Your task to perform on an android device: Go to CNN.com Image 0: 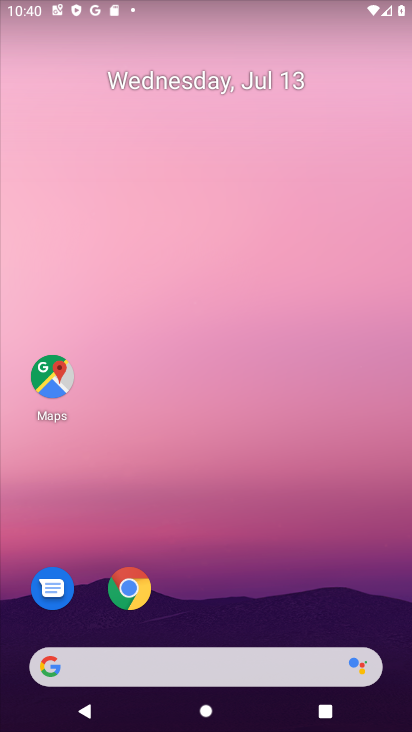
Step 0: drag from (254, 604) to (240, 119)
Your task to perform on an android device: Go to CNN.com Image 1: 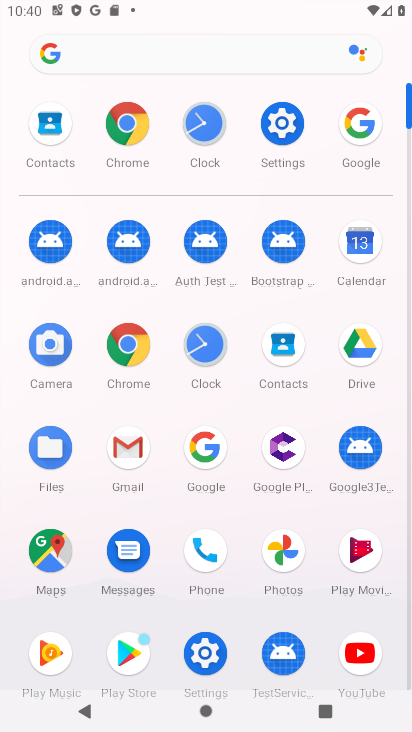
Step 1: click (203, 450)
Your task to perform on an android device: Go to CNN.com Image 2: 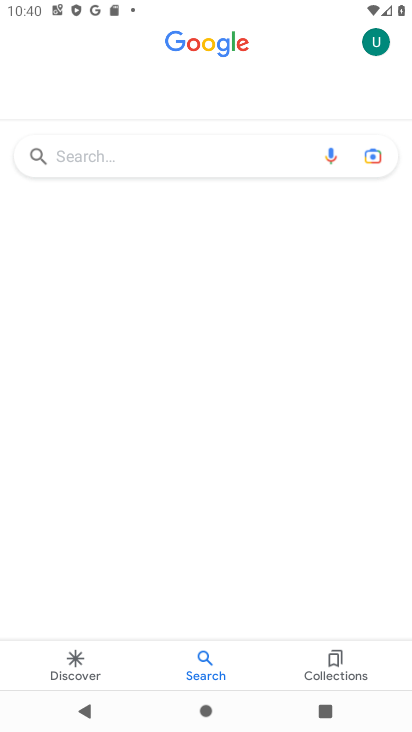
Step 2: click (155, 159)
Your task to perform on an android device: Go to CNN.com Image 3: 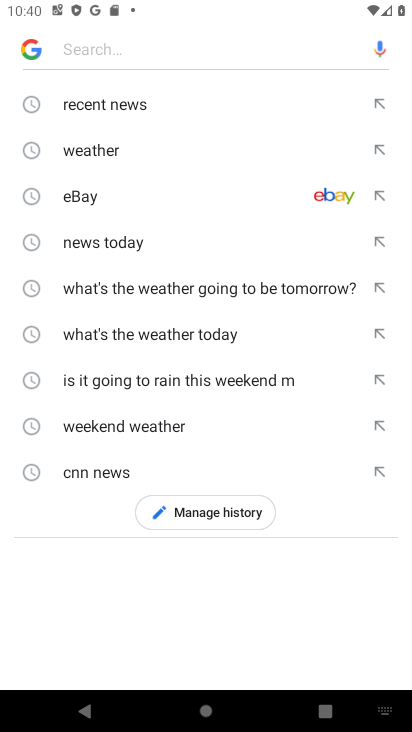
Step 3: type "Cnn.com"
Your task to perform on an android device: Go to CNN.com Image 4: 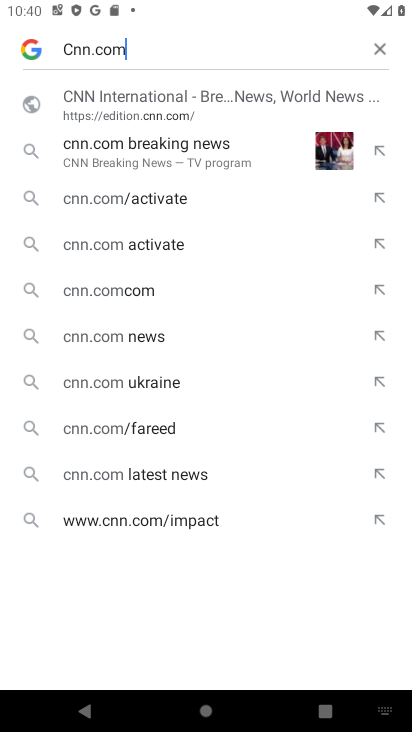
Step 4: click (132, 97)
Your task to perform on an android device: Go to CNN.com Image 5: 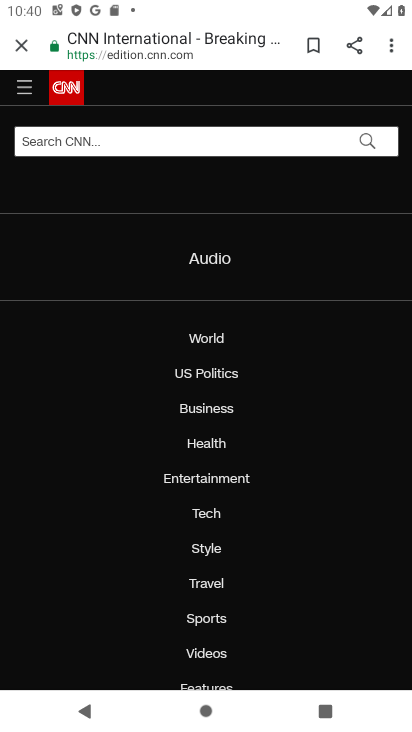
Step 5: task complete